Your task to perform on an android device: Open Chrome and go to settings Image 0: 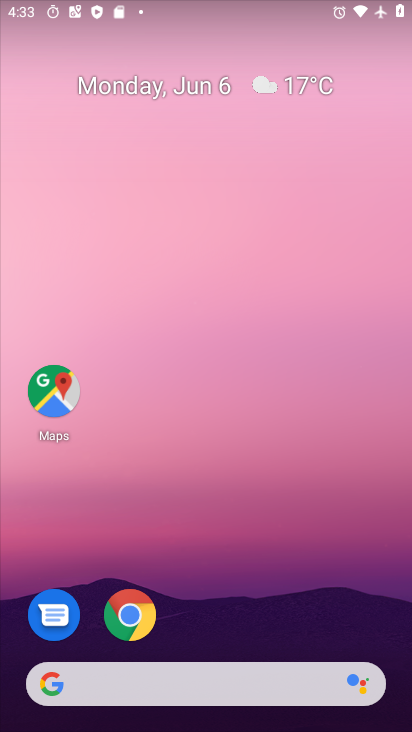
Step 0: drag from (285, 499) to (239, 6)
Your task to perform on an android device: Open Chrome and go to settings Image 1: 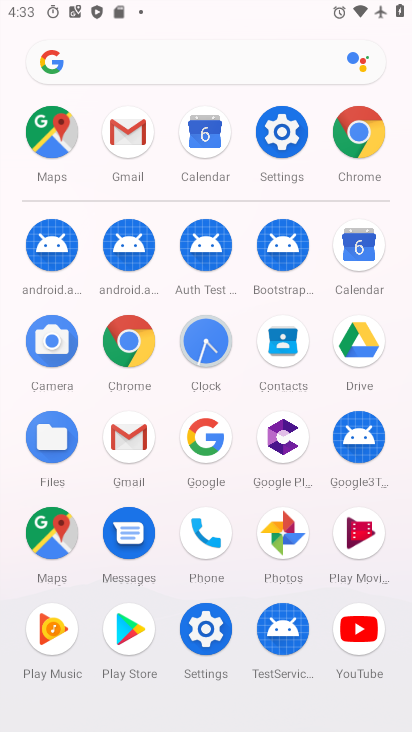
Step 1: drag from (7, 512) to (7, 188)
Your task to perform on an android device: Open Chrome and go to settings Image 2: 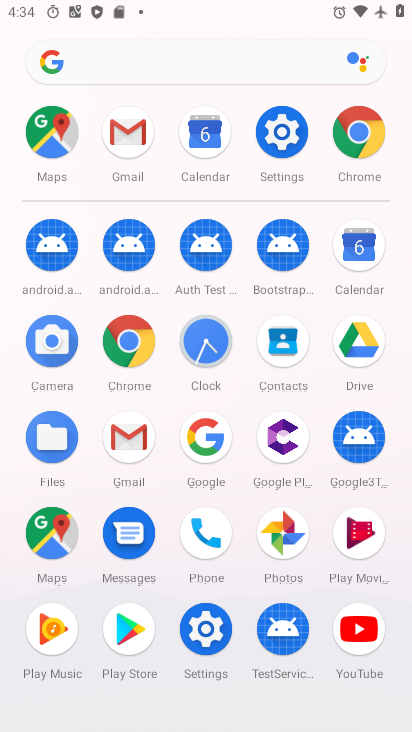
Step 2: click (123, 338)
Your task to perform on an android device: Open Chrome and go to settings Image 3: 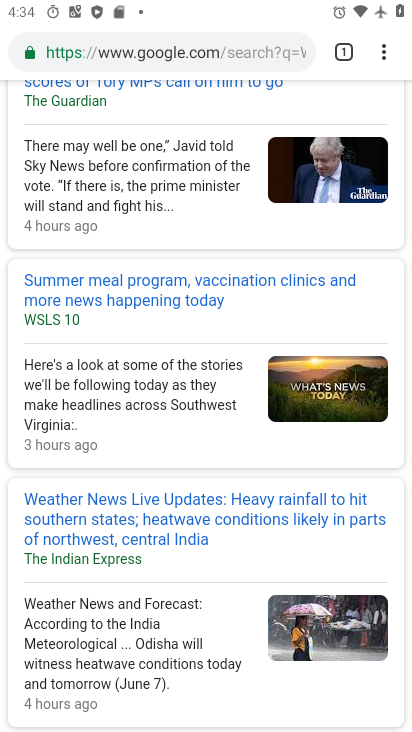
Step 3: task complete